Your task to perform on an android device: move a message to another label in the gmail app Image 0: 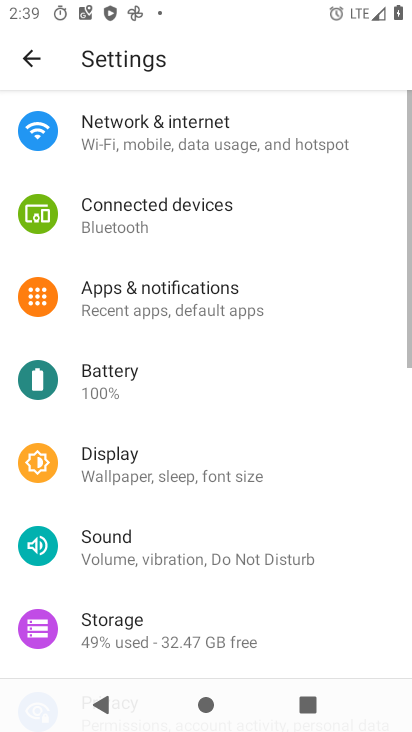
Step 0: press home button
Your task to perform on an android device: move a message to another label in the gmail app Image 1: 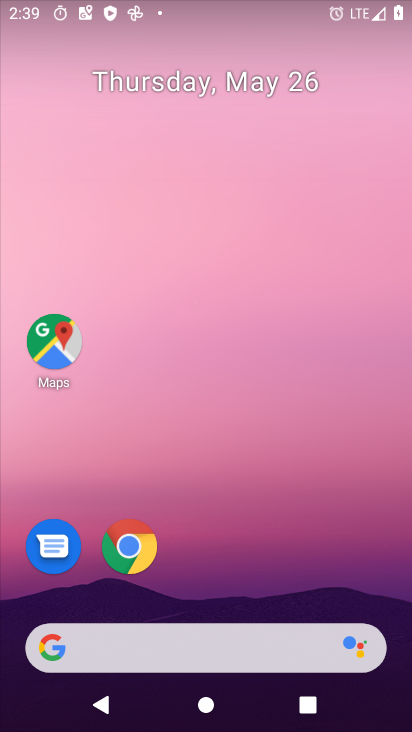
Step 1: drag from (221, 562) to (270, 101)
Your task to perform on an android device: move a message to another label in the gmail app Image 2: 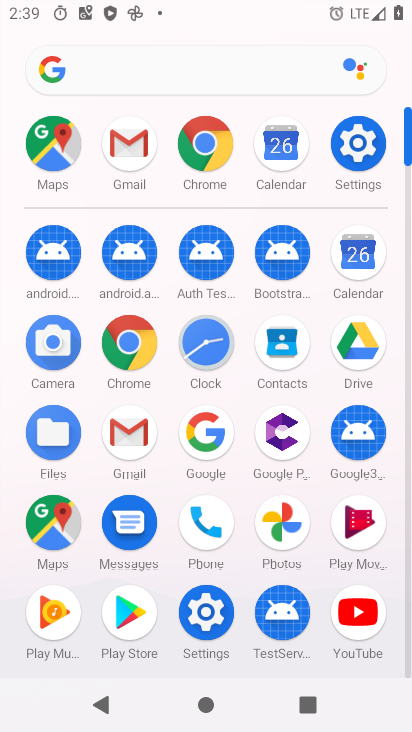
Step 2: click (124, 133)
Your task to perform on an android device: move a message to another label in the gmail app Image 3: 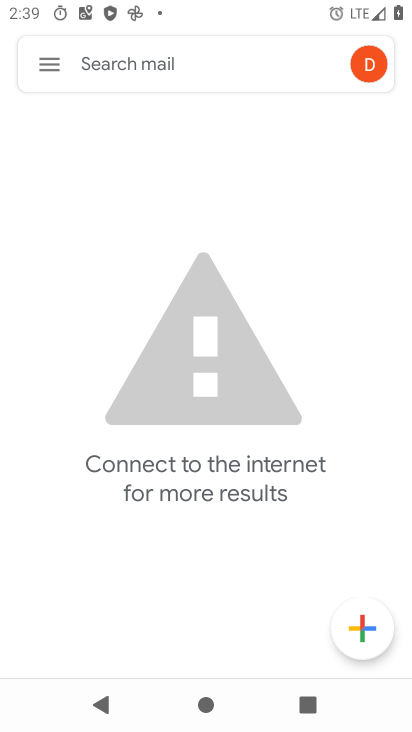
Step 3: click (53, 63)
Your task to perform on an android device: move a message to another label in the gmail app Image 4: 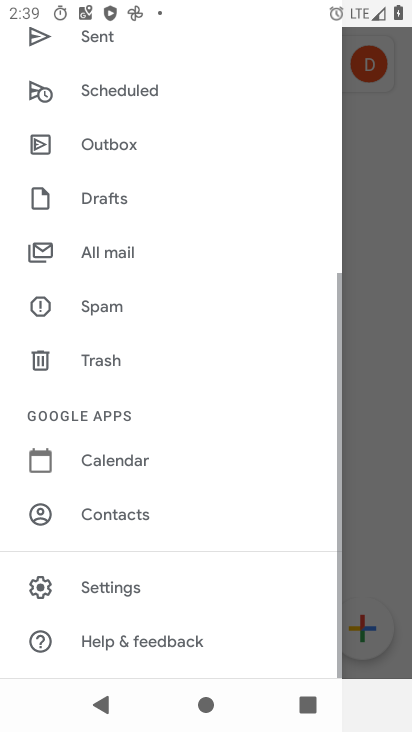
Step 4: click (107, 235)
Your task to perform on an android device: move a message to another label in the gmail app Image 5: 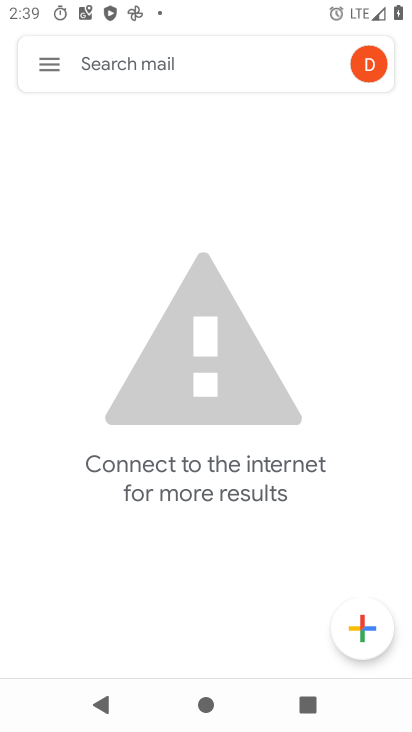
Step 5: task complete